Your task to perform on an android device: Go to Amazon Image 0: 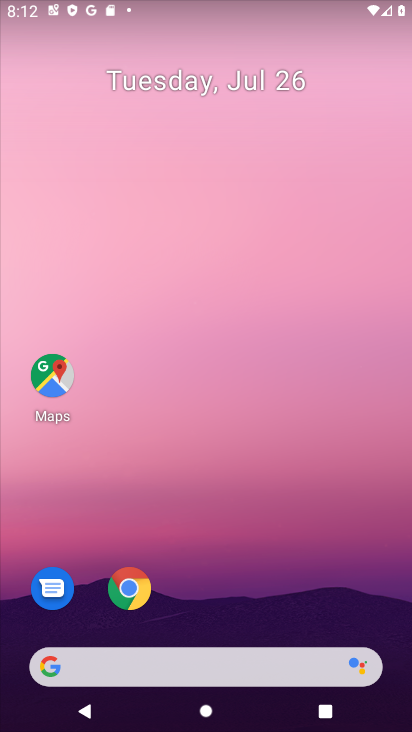
Step 0: press home button
Your task to perform on an android device: Go to Amazon Image 1: 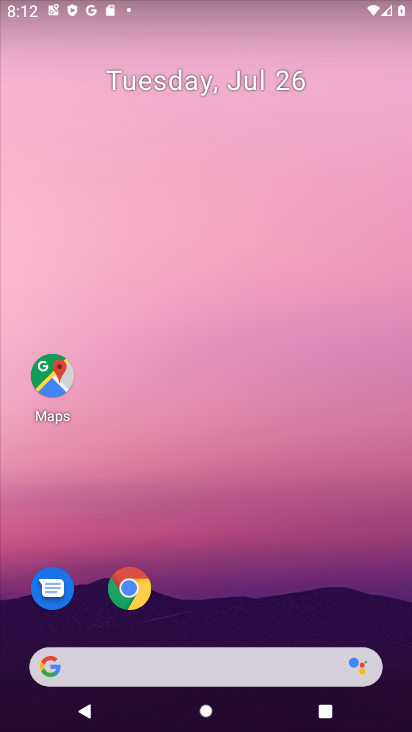
Step 1: click (48, 664)
Your task to perform on an android device: Go to Amazon Image 2: 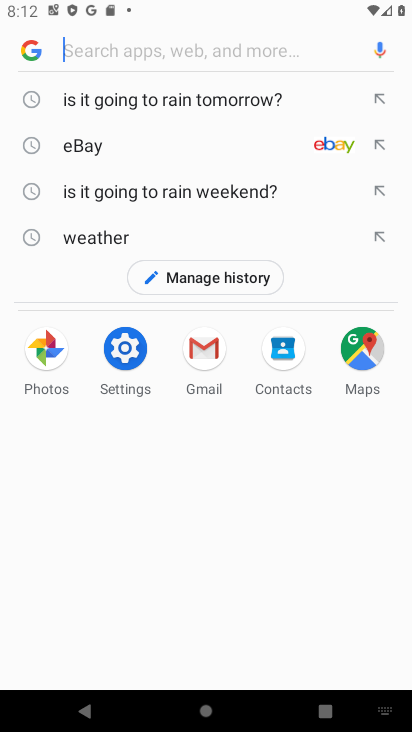
Step 2: type " Amazon"
Your task to perform on an android device: Go to Amazon Image 3: 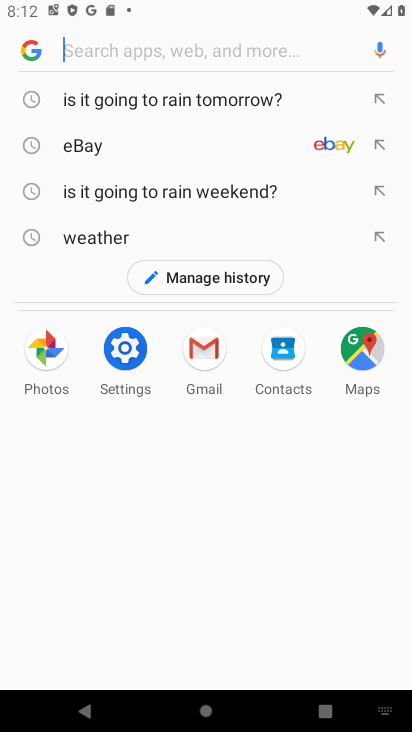
Step 3: click (94, 55)
Your task to perform on an android device: Go to Amazon Image 4: 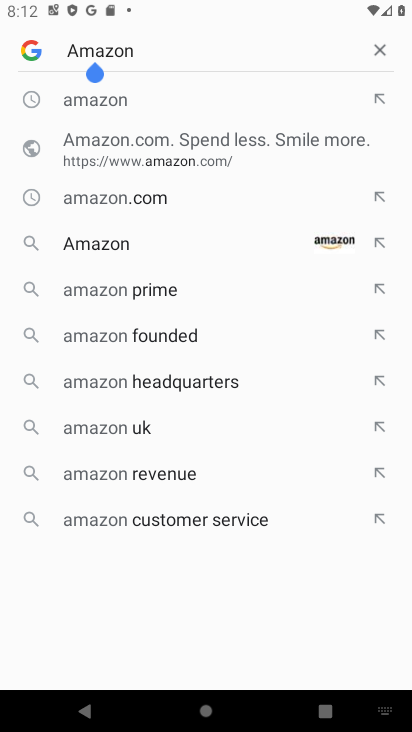
Step 4: click (324, 234)
Your task to perform on an android device: Go to Amazon Image 5: 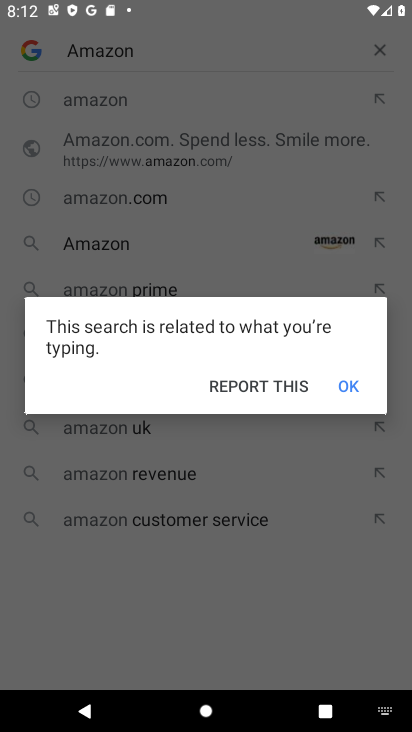
Step 5: click (355, 390)
Your task to perform on an android device: Go to Amazon Image 6: 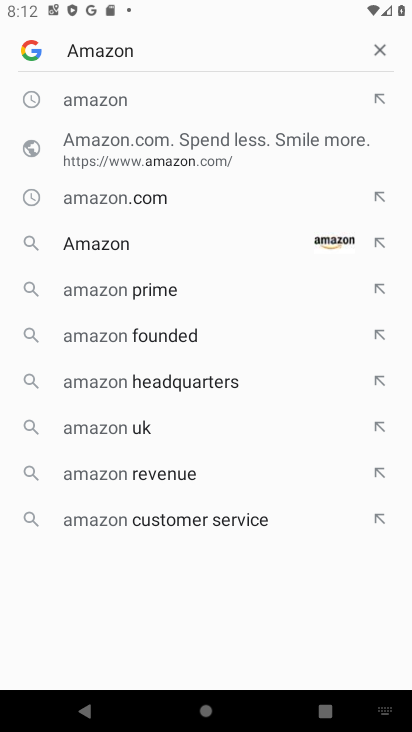
Step 6: click (322, 236)
Your task to perform on an android device: Go to Amazon Image 7: 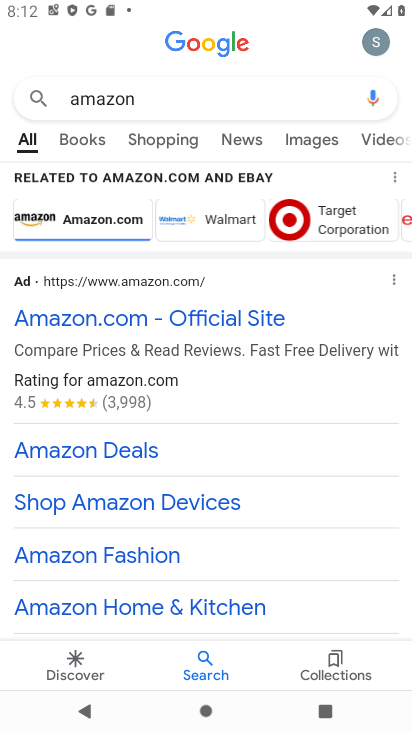
Step 7: drag from (321, 618) to (318, 185)
Your task to perform on an android device: Go to Amazon Image 8: 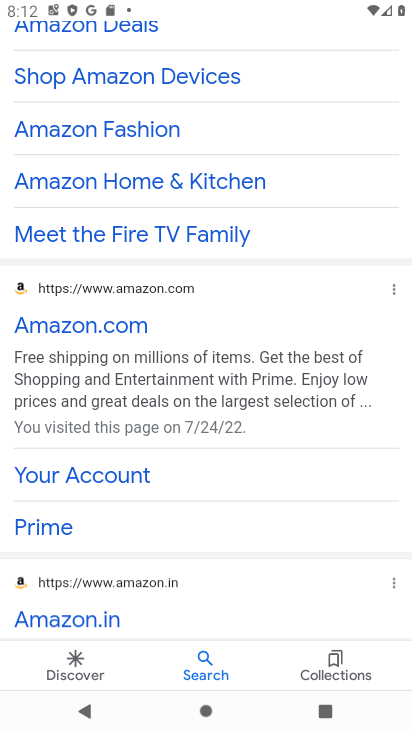
Step 8: click (99, 324)
Your task to perform on an android device: Go to Amazon Image 9: 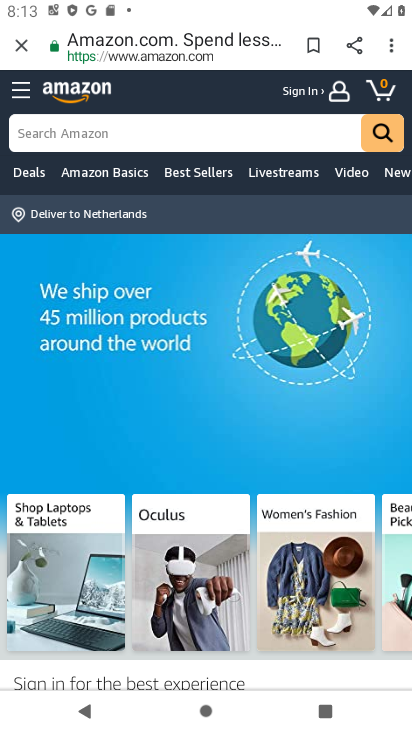
Step 9: task complete